Your task to perform on an android device: Open the calendar and show me this week's events? Image 0: 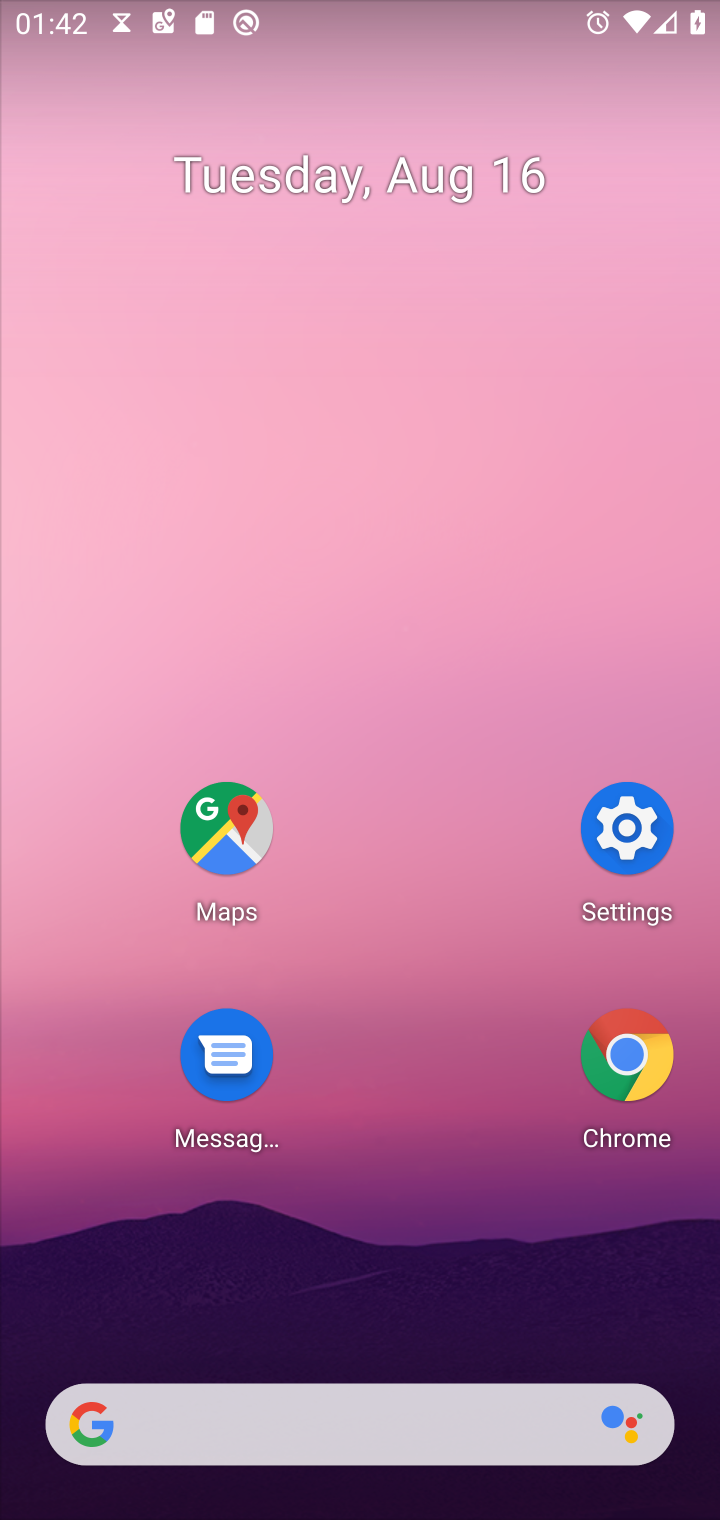
Step 0: press home button
Your task to perform on an android device: Open the calendar and show me this week's events? Image 1: 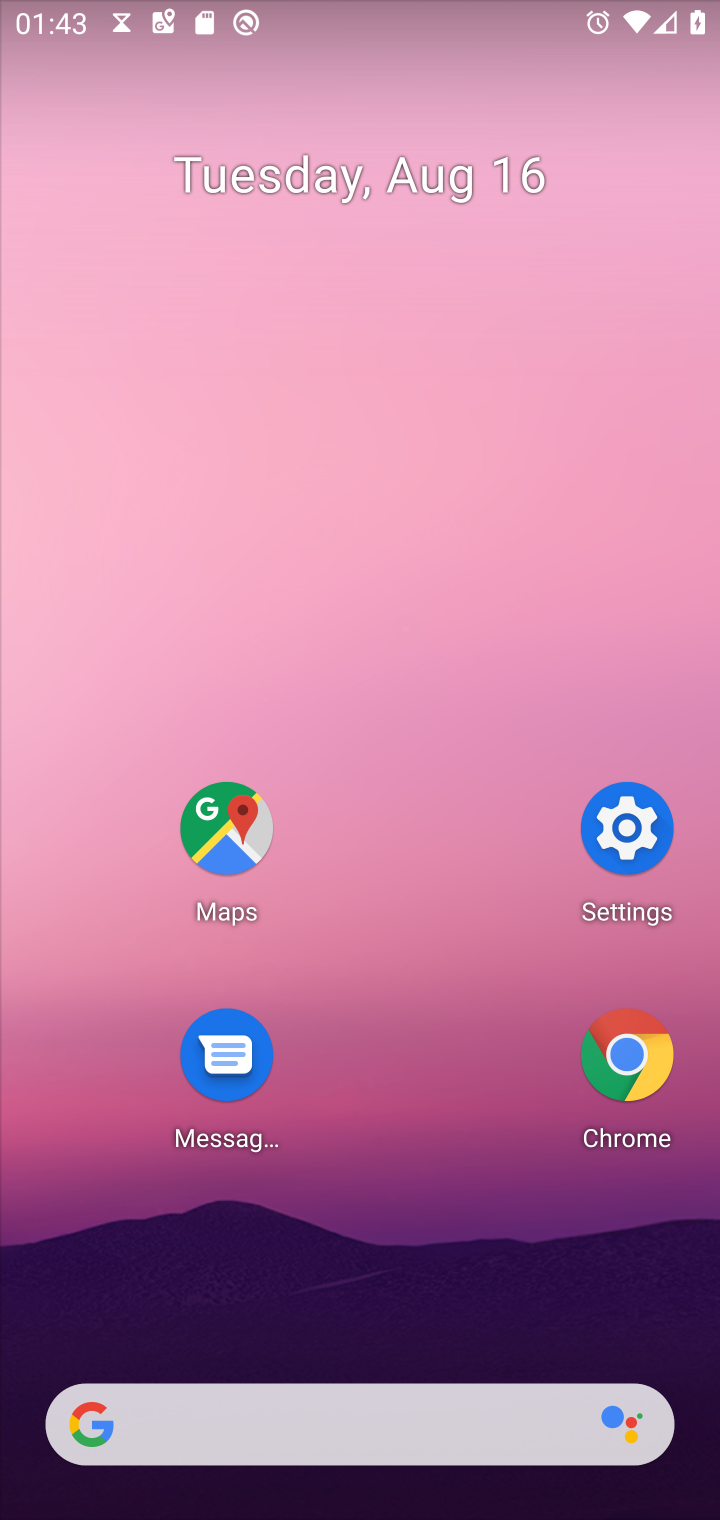
Step 1: drag from (294, 1363) to (421, 189)
Your task to perform on an android device: Open the calendar and show me this week's events? Image 2: 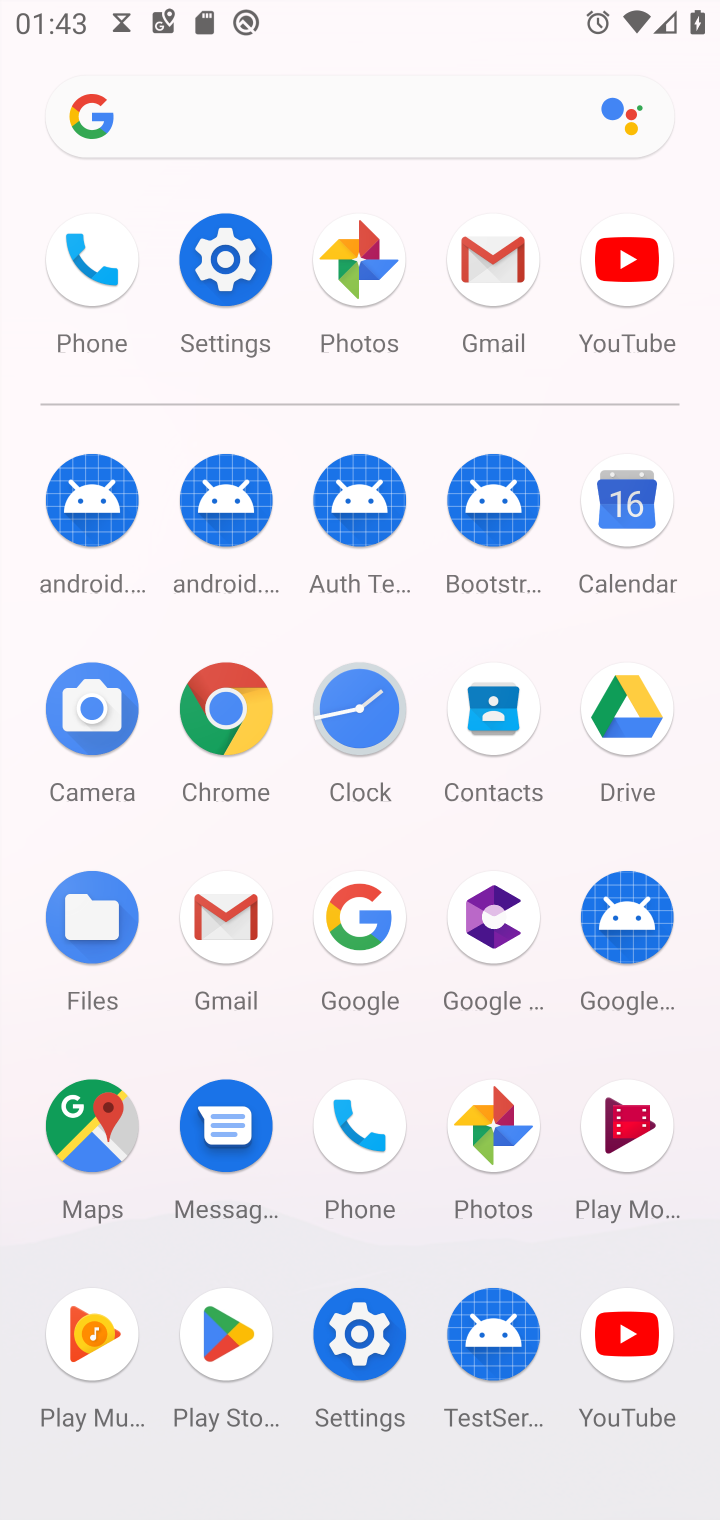
Step 2: click (627, 511)
Your task to perform on an android device: Open the calendar and show me this week's events? Image 3: 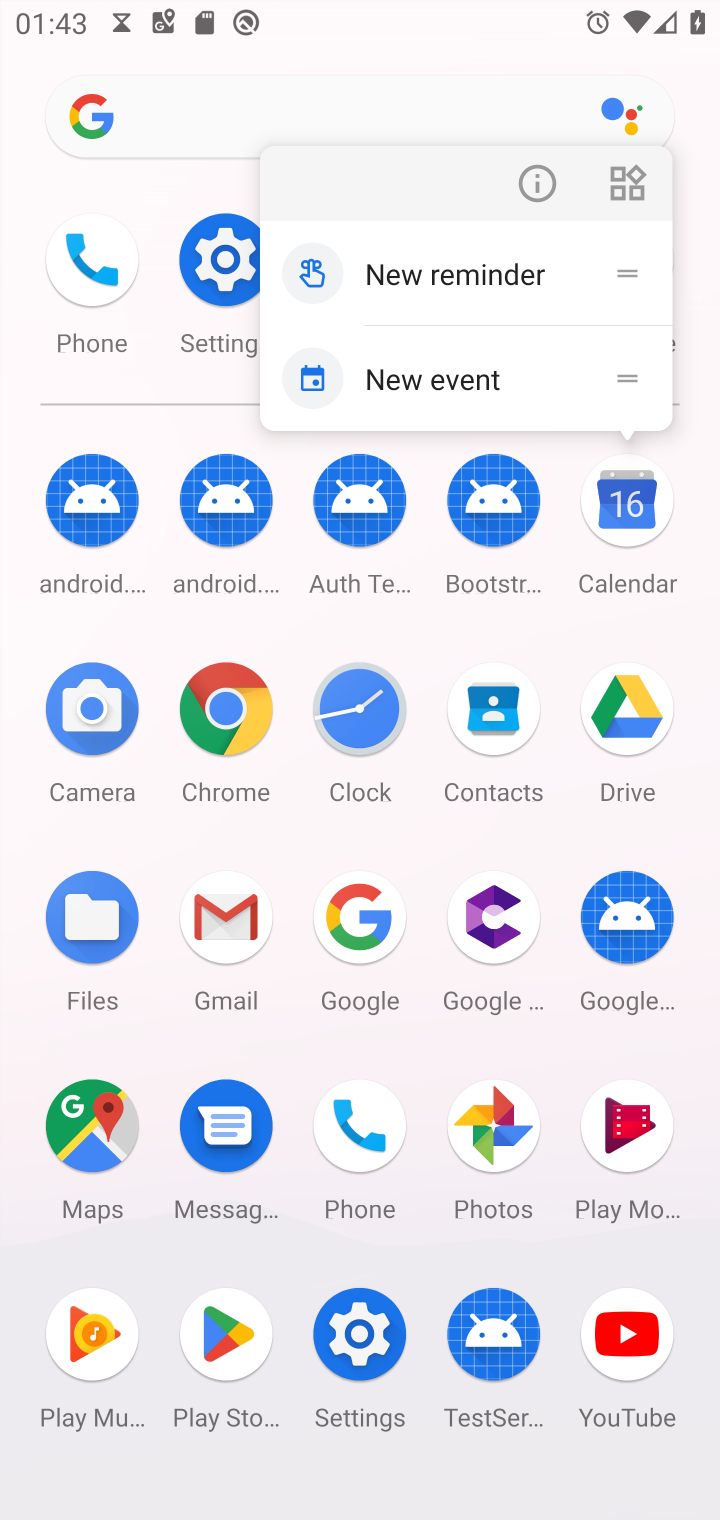
Step 3: click (627, 527)
Your task to perform on an android device: Open the calendar and show me this week's events? Image 4: 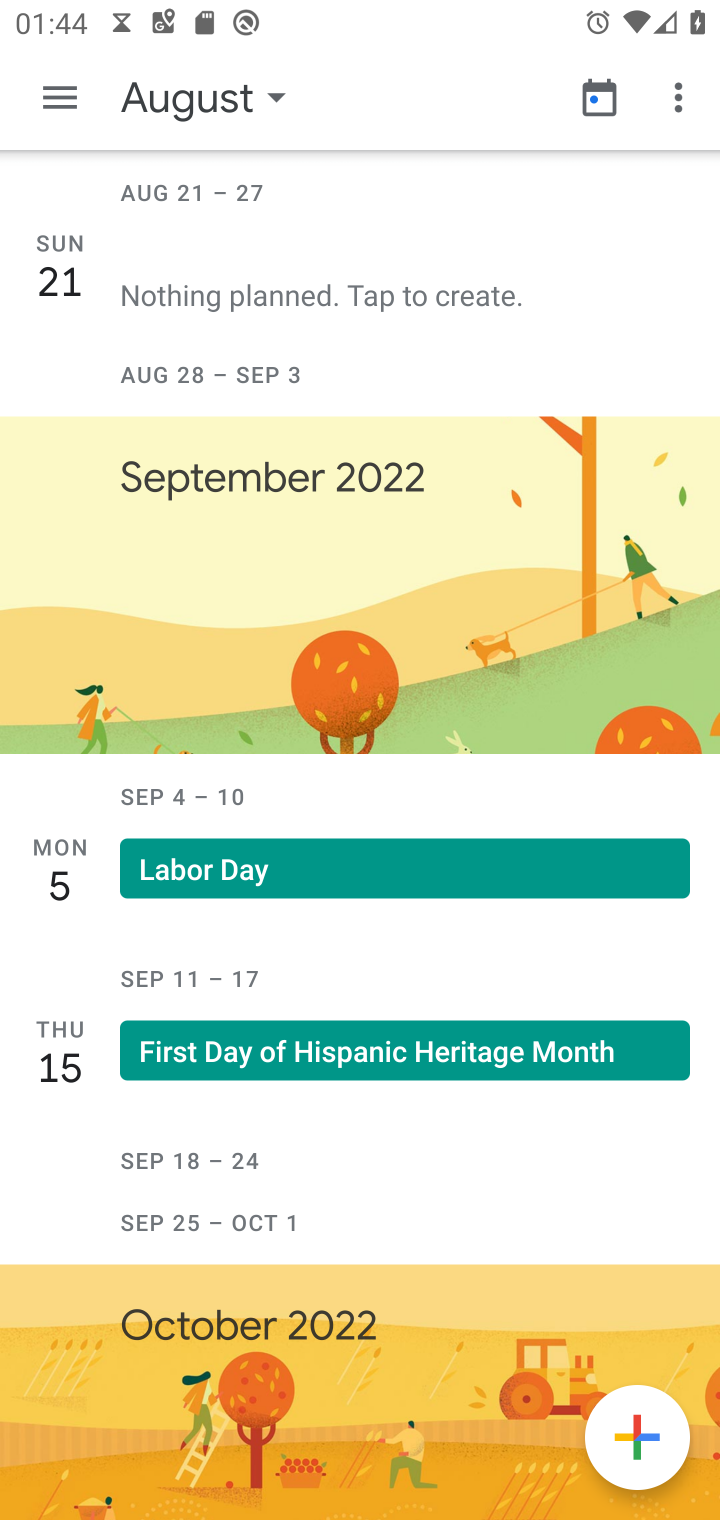
Step 4: click (198, 103)
Your task to perform on an android device: Open the calendar and show me this week's events? Image 5: 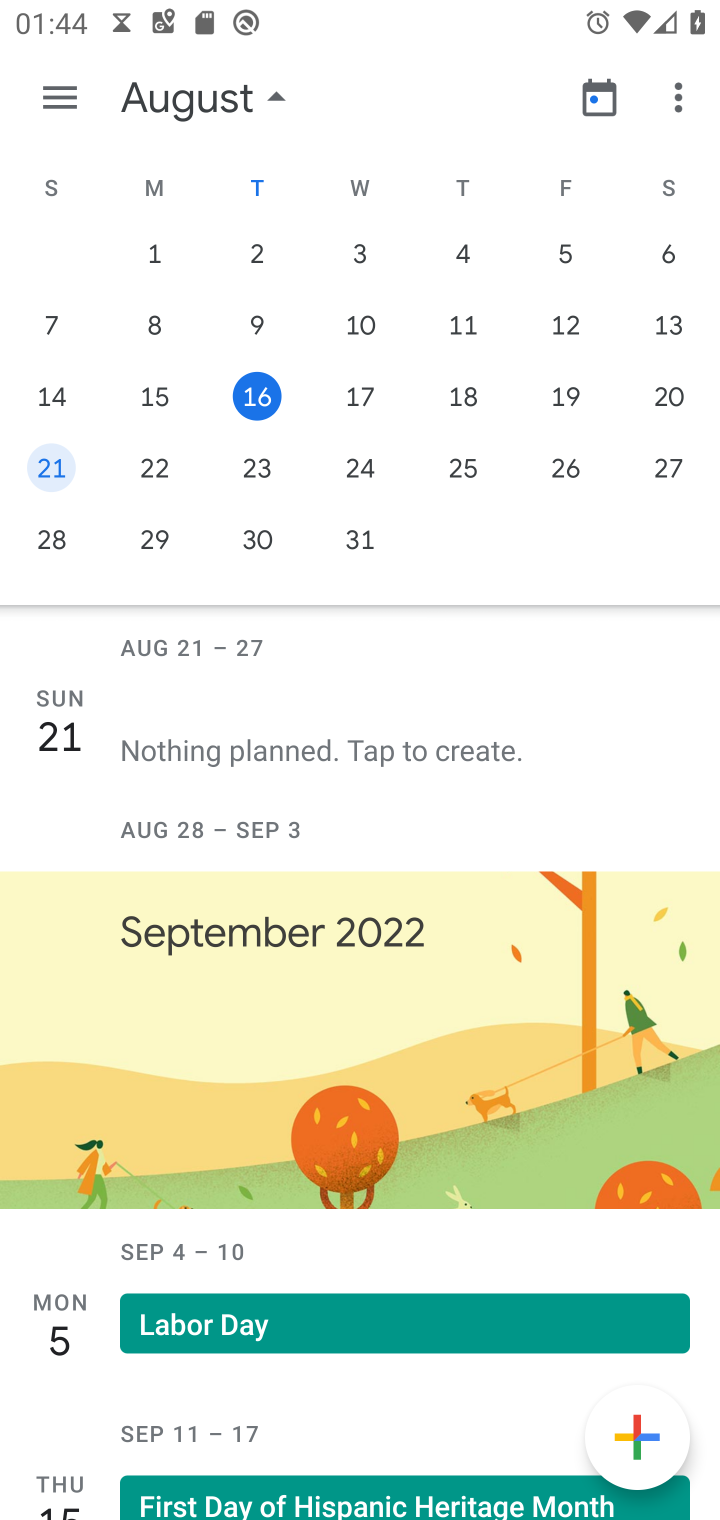
Step 5: click (248, 400)
Your task to perform on an android device: Open the calendar and show me this week's events? Image 6: 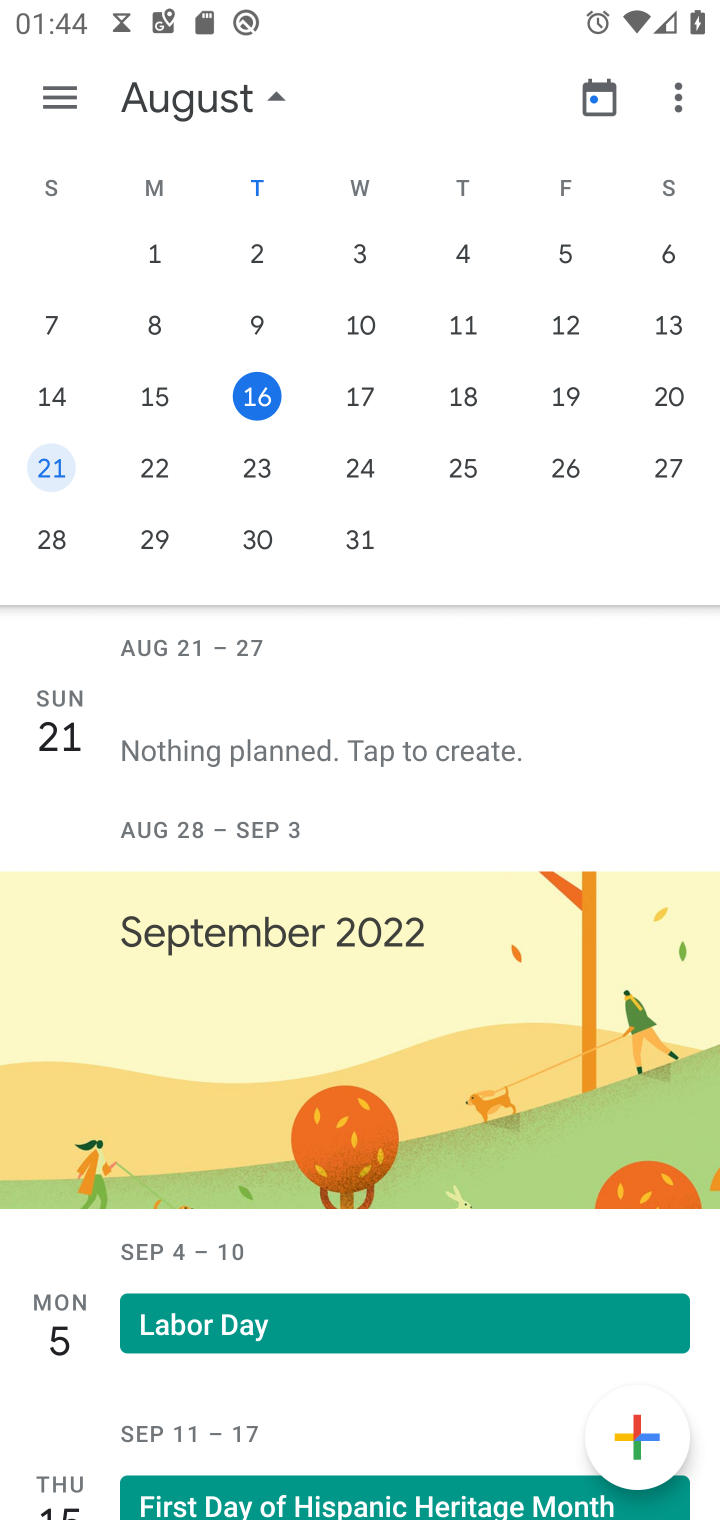
Step 6: click (265, 380)
Your task to perform on an android device: Open the calendar and show me this week's events? Image 7: 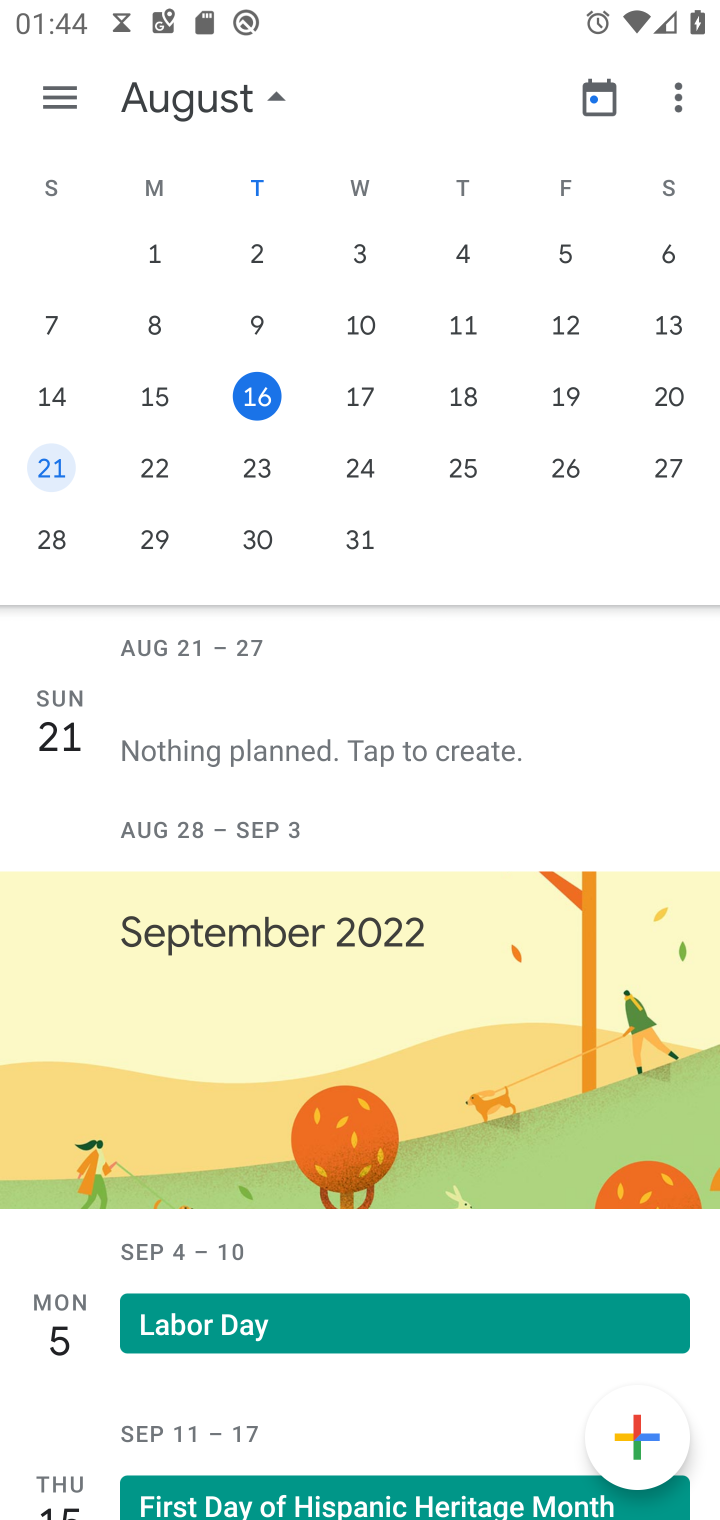
Step 7: click (270, 397)
Your task to perform on an android device: Open the calendar and show me this week's events? Image 8: 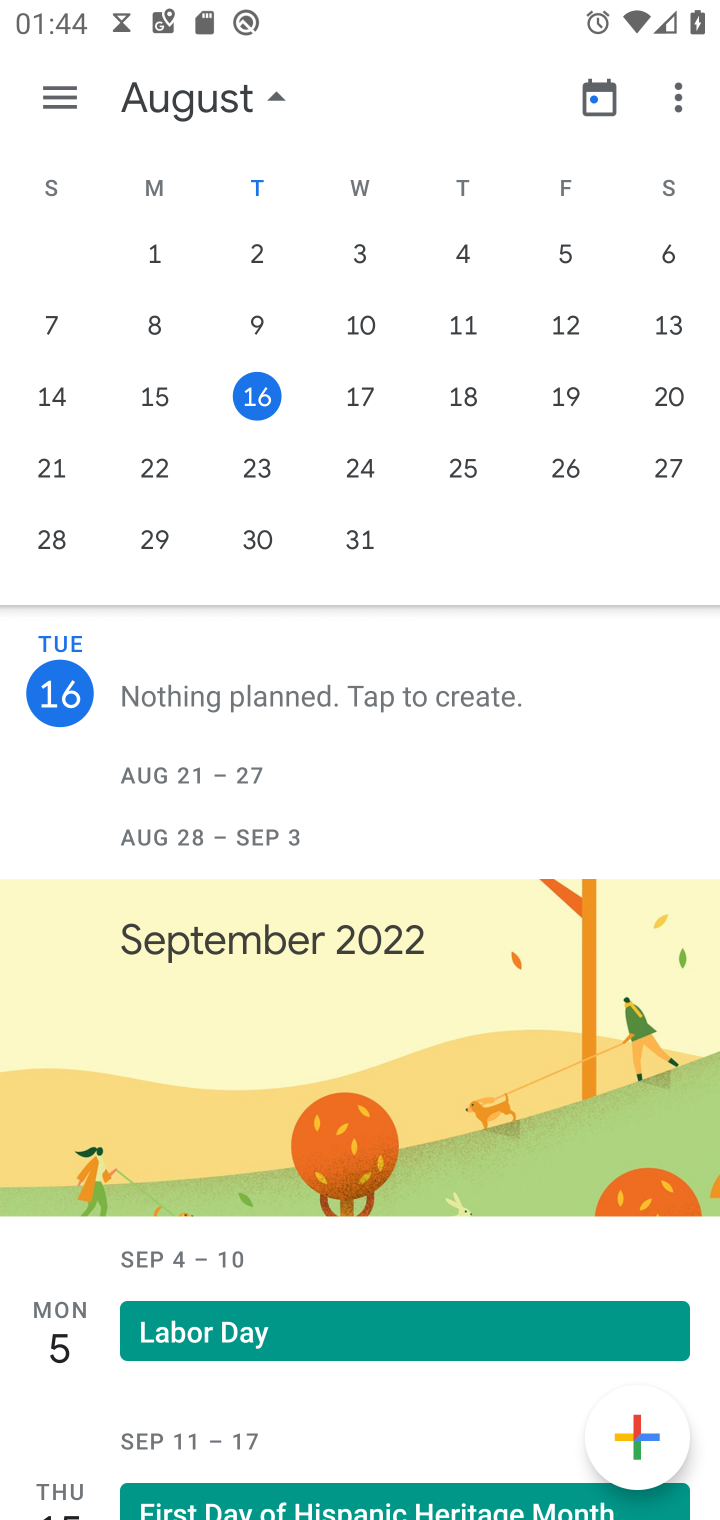
Step 8: click (52, 79)
Your task to perform on an android device: Open the calendar and show me this week's events? Image 9: 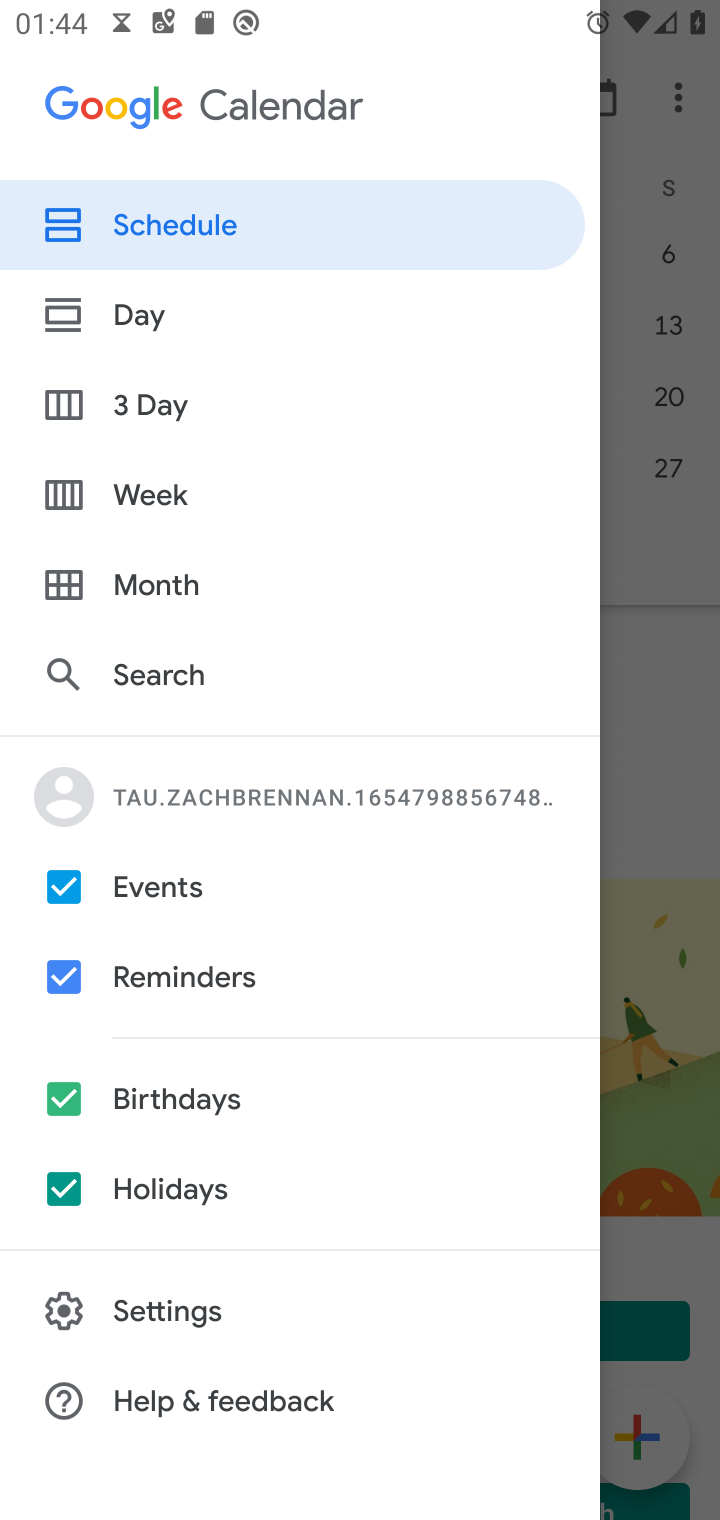
Step 9: click (142, 511)
Your task to perform on an android device: Open the calendar and show me this week's events? Image 10: 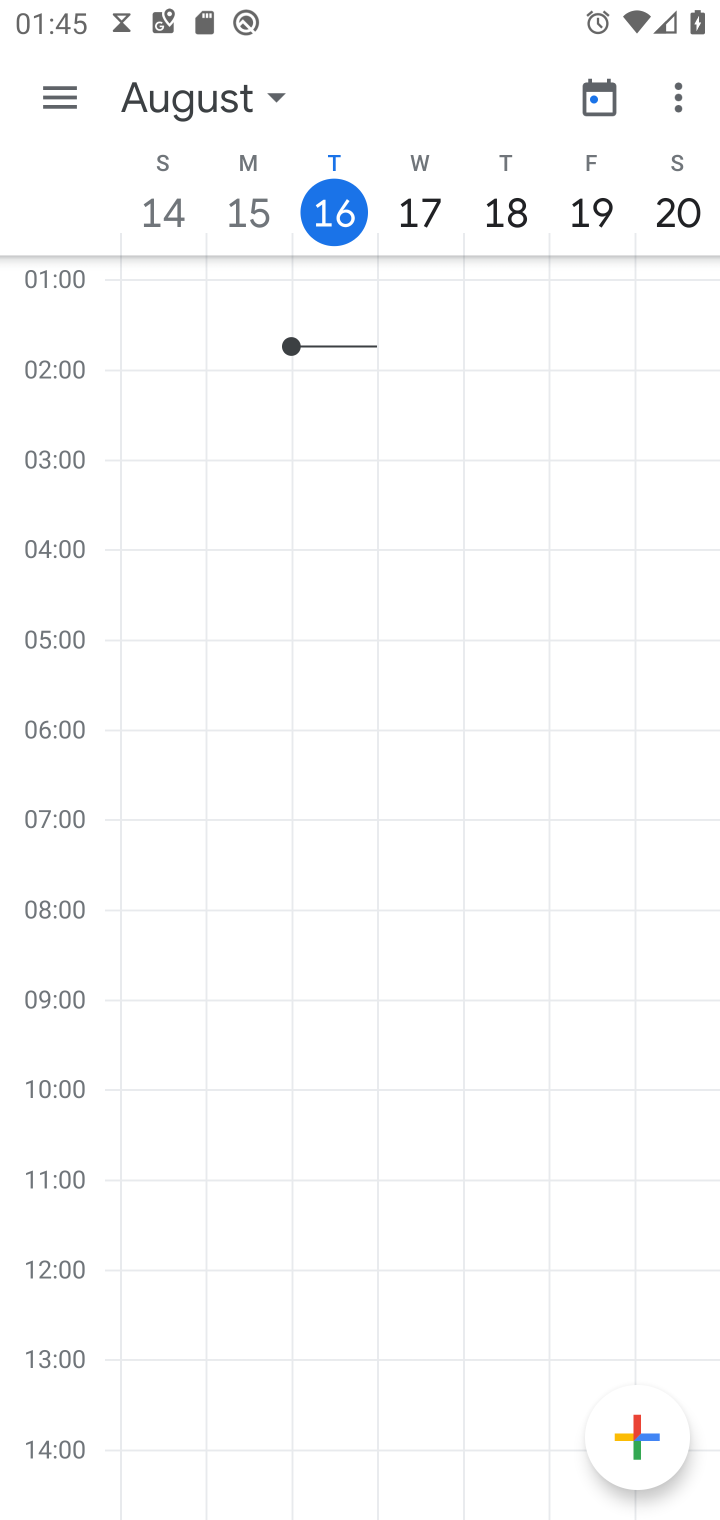
Step 10: click (69, 107)
Your task to perform on an android device: Open the calendar and show me this week's events? Image 11: 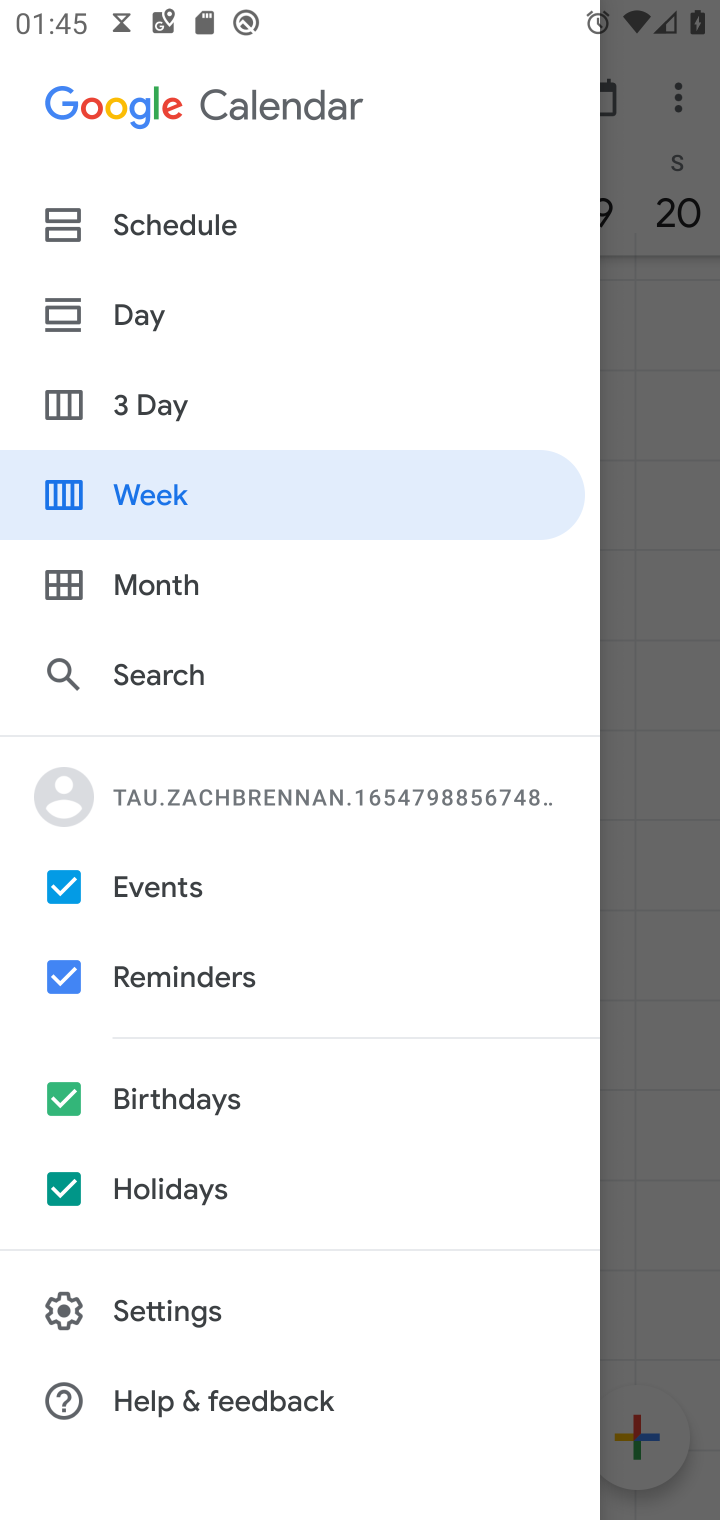
Step 11: click (210, 233)
Your task to perform on an android device: Open the calendar and show me this week's events? Image 12: 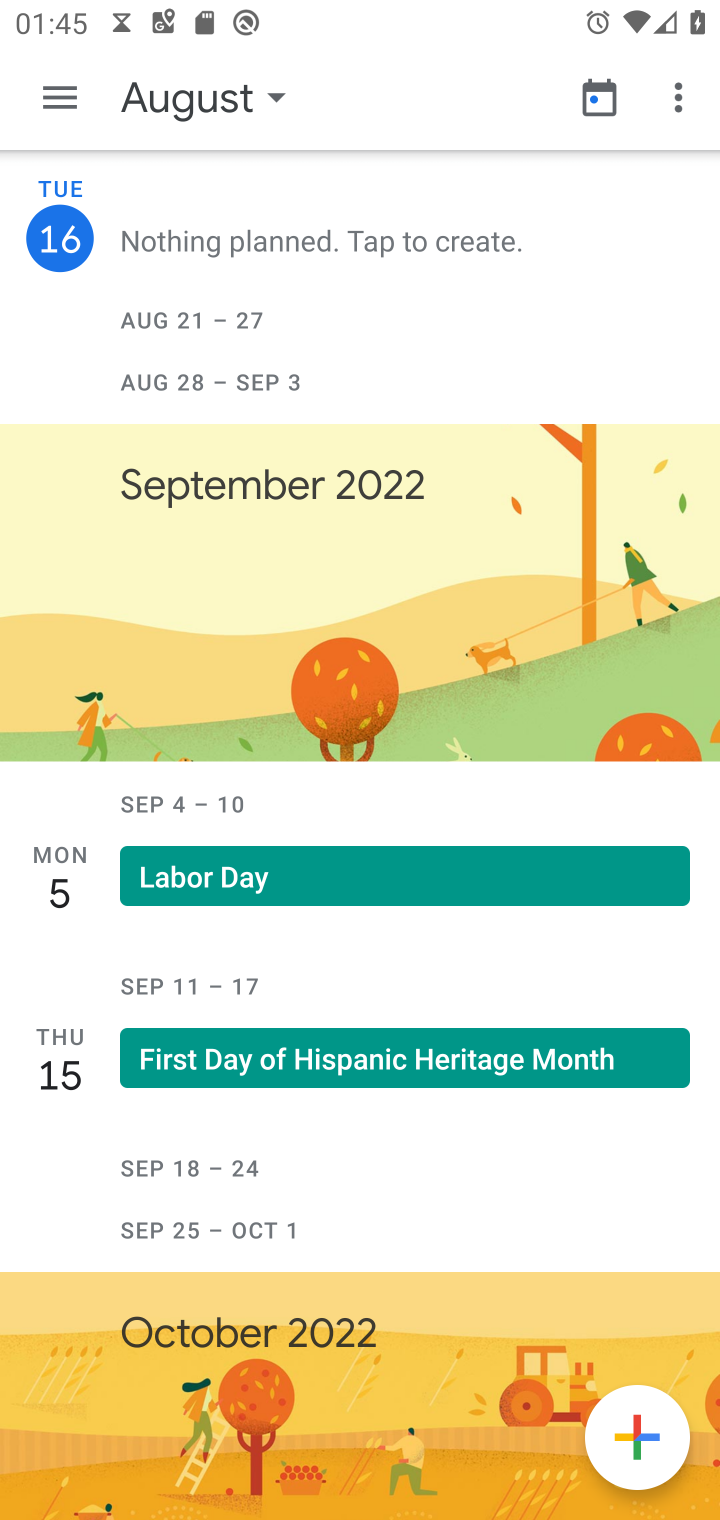
Step 12: task complete